Your task to perform on an android device: Go to notification settings Image 0: 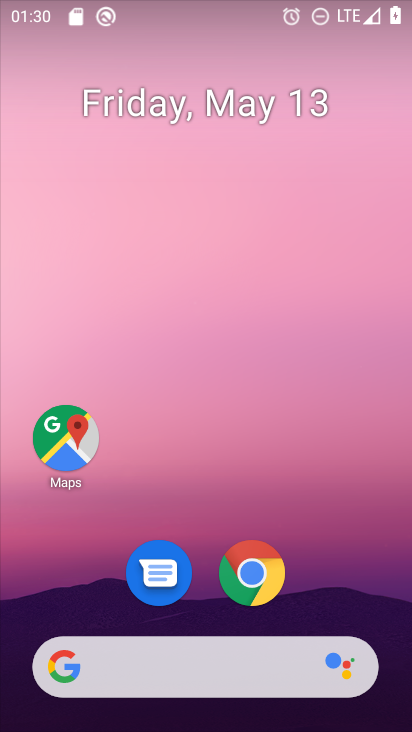
Step 0: drag from (225, 620) to (160, 0)
Your task to perform on an android device: Go to notification settings Image 1: 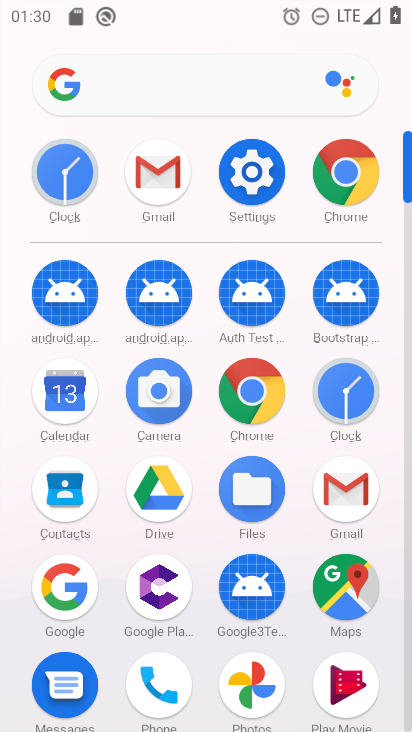
Step 1: click (250, 172)
Your task to perform on an android device: Go to notification settings Image 2: 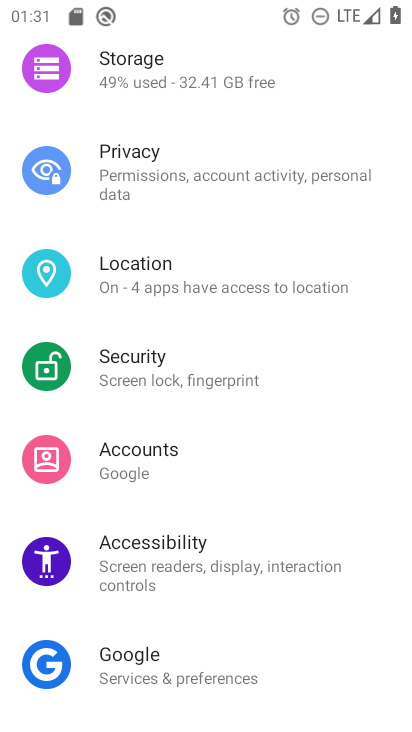
Step 2: task complete